Your task to perform on an android device: see creations saved in the google photos Image 0: 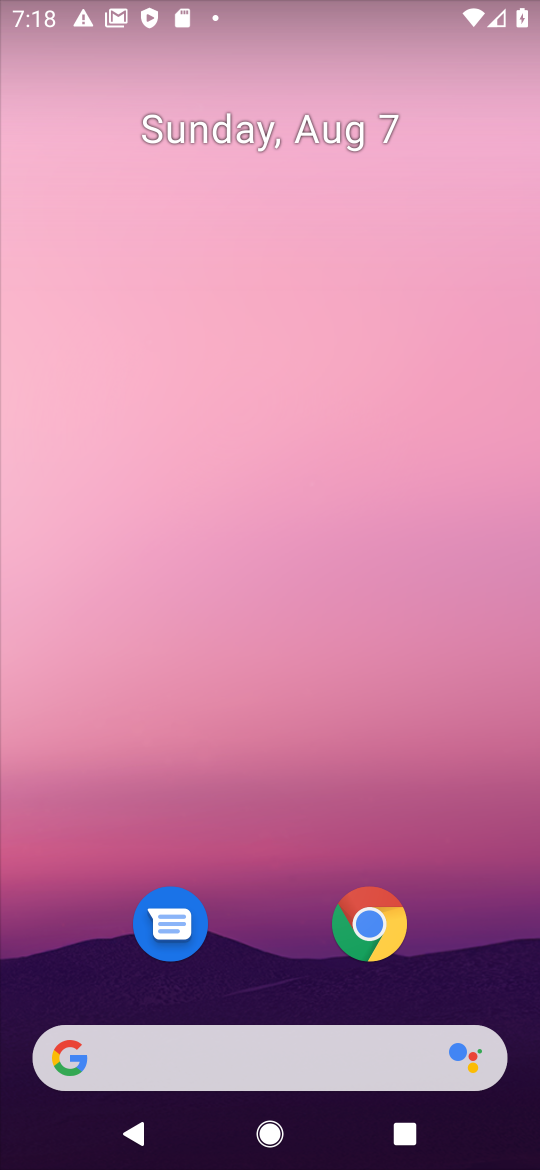
Step 0: drag from (318, 1076) to (316, 178)
Your task to perform on an android device: see creations saved in the google photos Image 1: 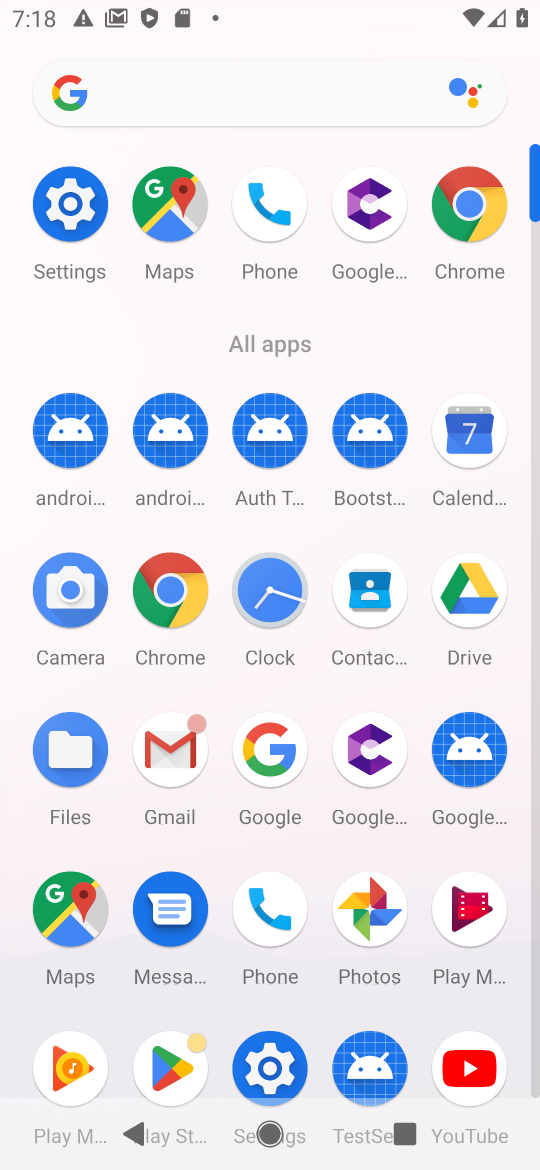
Step 1: click (373, 905)
Your task to perform on an android device: see creations saved in the google photos Image 2: 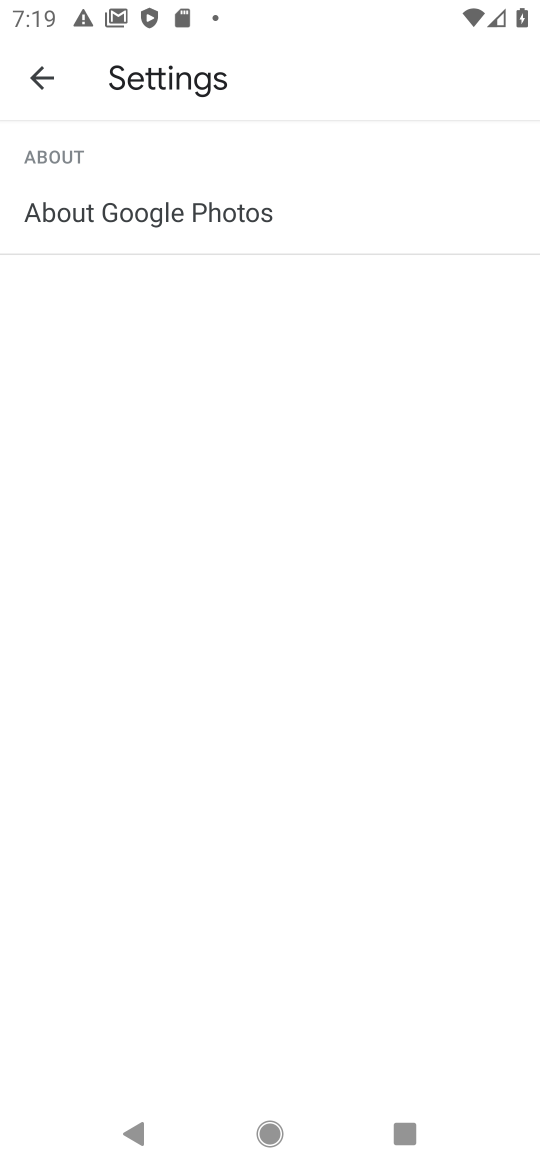
Step 2: click (47, 85)
Your task to perform on an android device: see creations saved in the google photos Image 3: 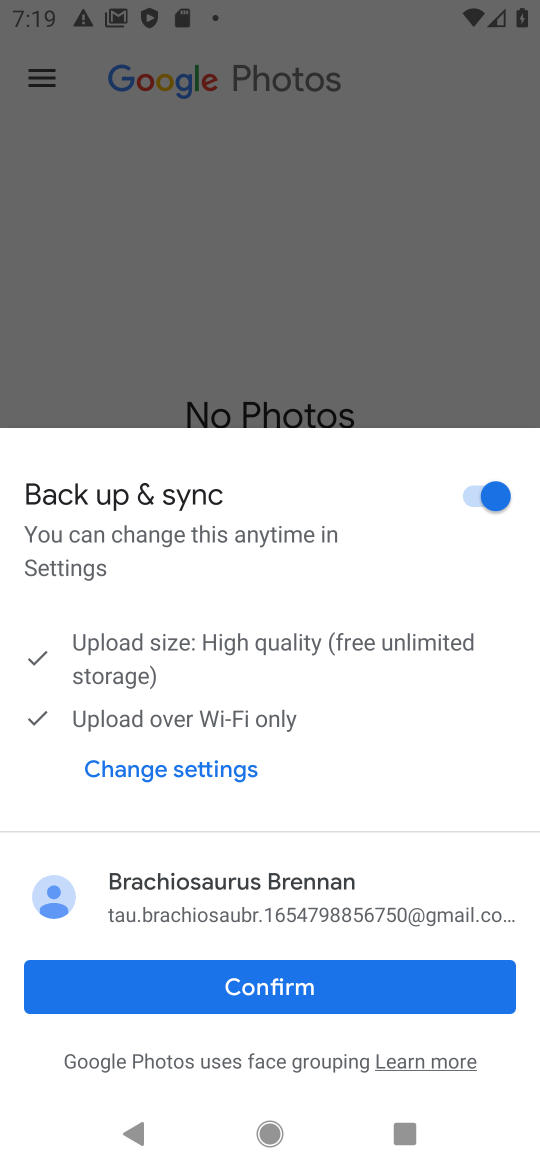
Step 3: click (306, 975)
Your task to perform on an android device: see creations saved in the google photos Image 4: 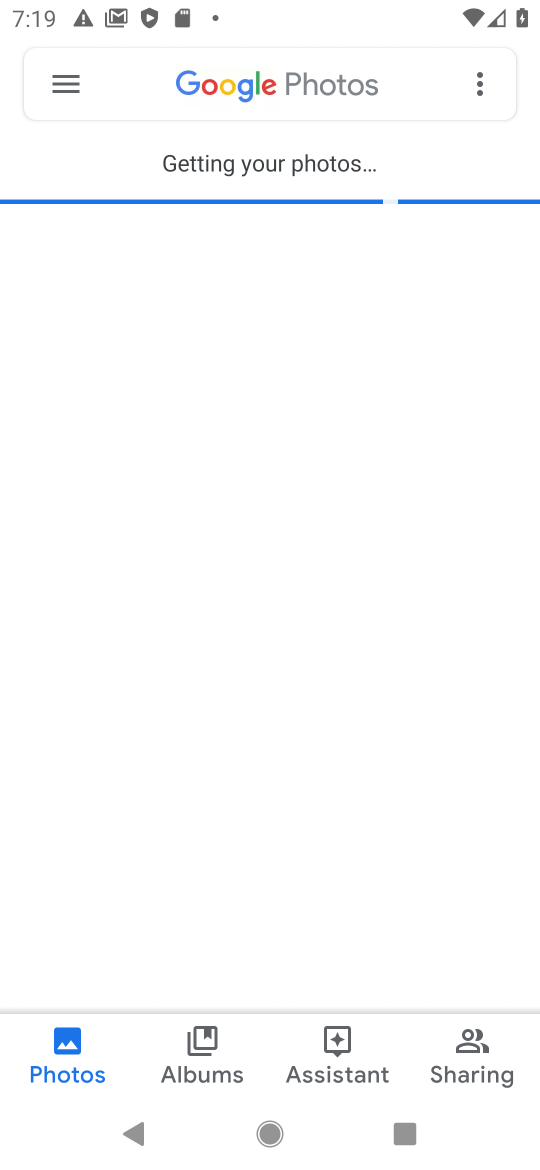
Step 4: task complete